Your task to perform on an android device: turn off notifications settings in the gmail app Image 0: 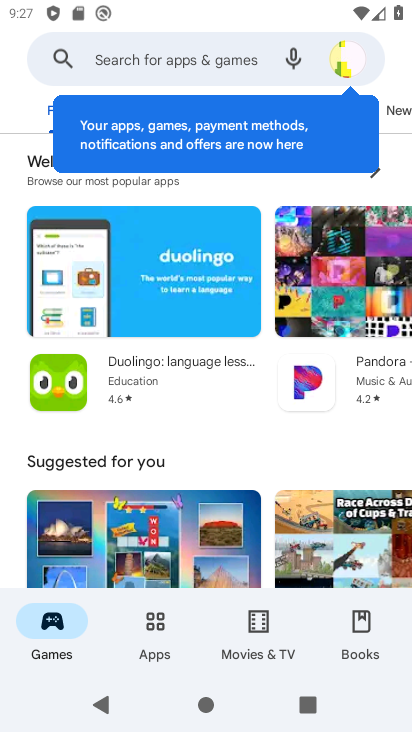
Step 0: press back button
Your task to perform on an android device: turn off notifications settings in the gmail app Image 1: 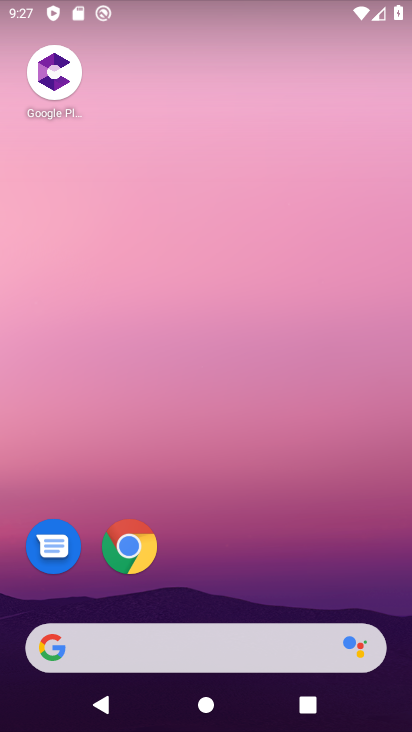
Step 1: drag from (267, 582) to (230, 66)
Your task to perform on an android device: turn off notifications settings in the gmail app Image 2: 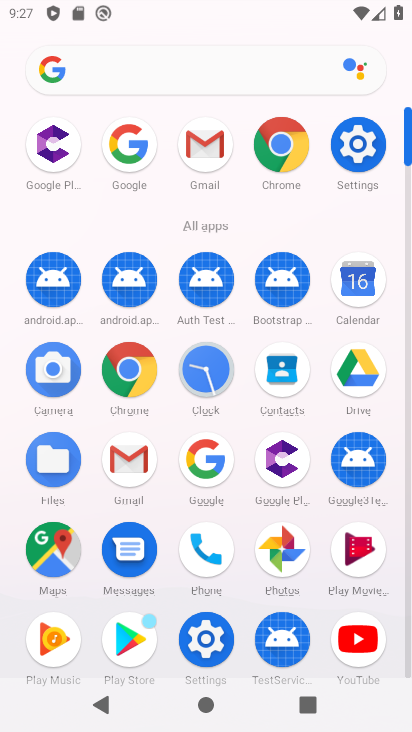
Step 2: click (205, 145)
Your task to perform on an android device: turn off notifications settings in the gmail app Image 3: 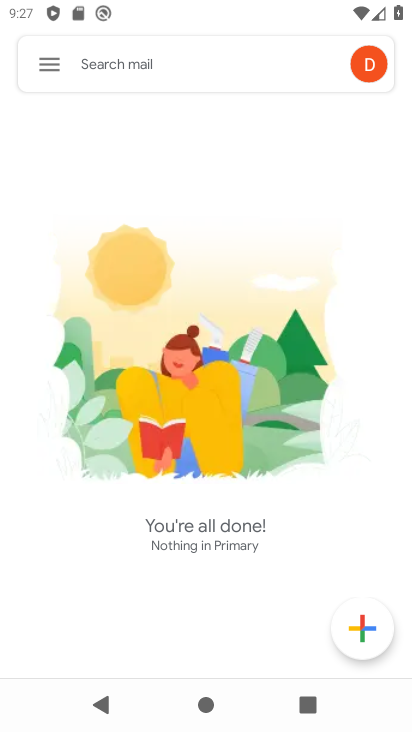
Step 3: click (50, 66)
Your task to perform on an android device: turn off notifications settings in the gmail app Image 4: 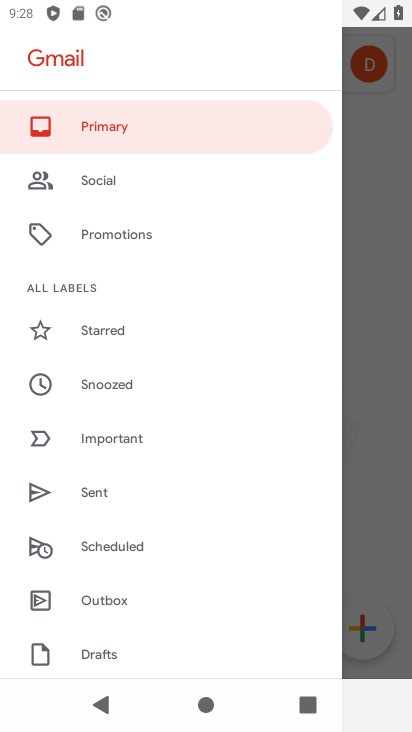
Step 4: drag from (138, 419) to (144, 327)
Your task to perform on an android device: turn off notifications settings in the gmail app Image 5: 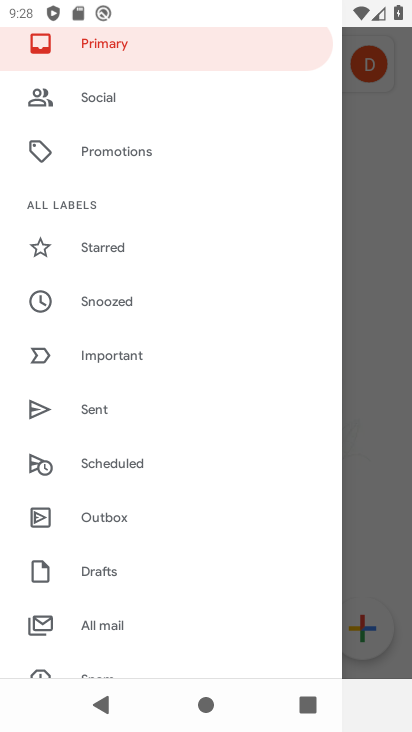
Step 5: drag from (114, 444) to (152, 343)
Your task to perform on an android device: turn off notifications settings in the gmail app Image 6: 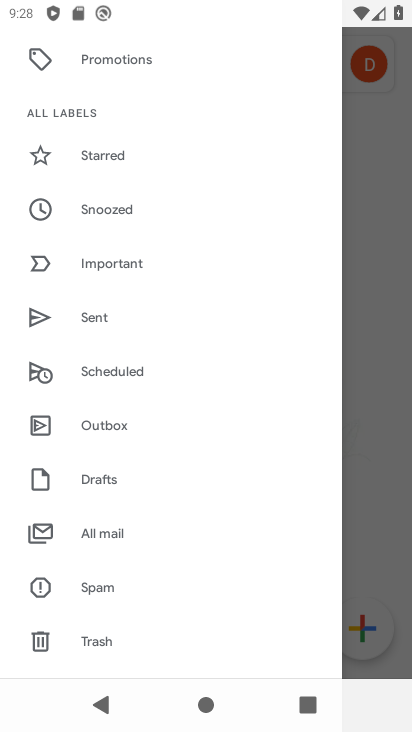
Step 6: drag from (158, 619) to (208, 489)
Your task to perform on an android device: turn off notifications settings in the gmail app Image 7: 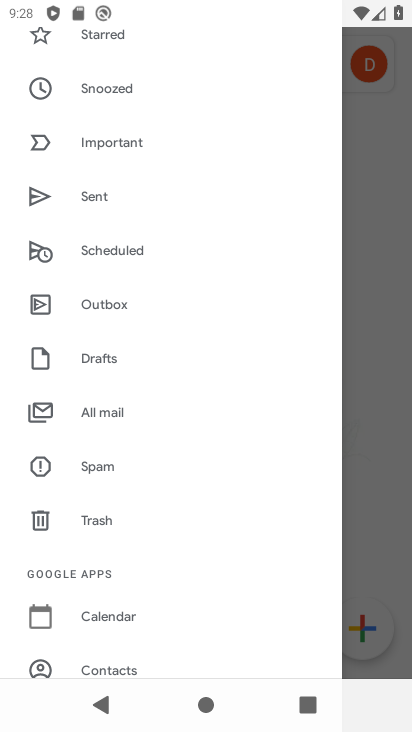
Step 7: drag from (137, 572) to (192, 496)
Your task to perform on an android device: turn off notifications settings in the gmail app Image 8: 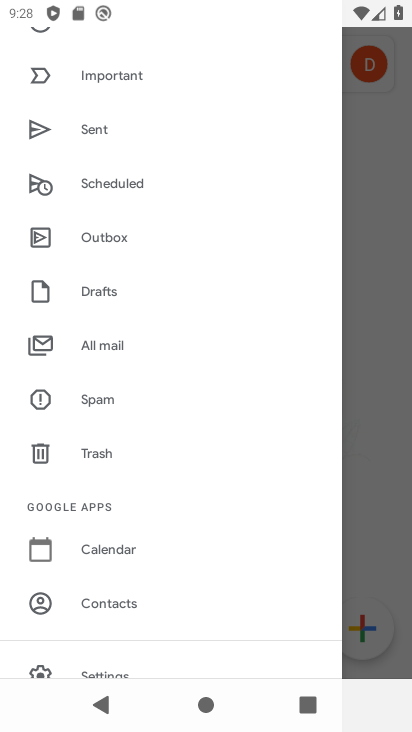
Step 8: drag from (147, 610) to (210, 538)
Your task to perform on an android device: turn off notifications settings in the gmail app Image 9: 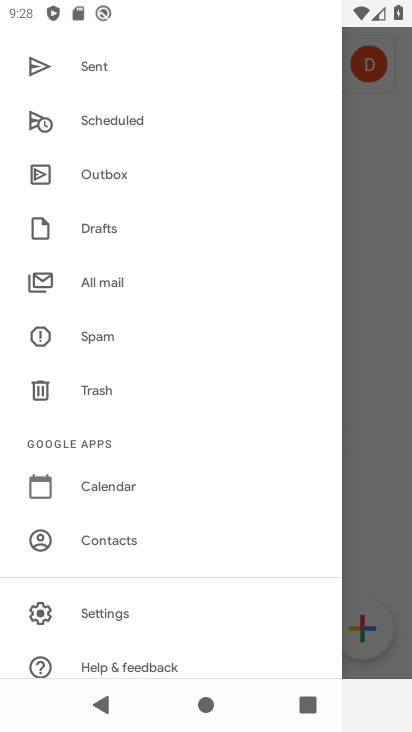
Step 9: click (98, 621)
Your task to perform on an android device: turn off notifications settings in the gmail app Image 10: 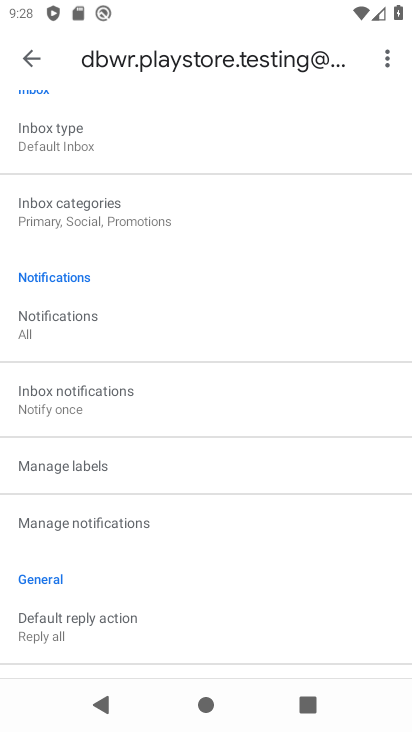
Step 10: click (87, 523)
Your task to perform on an android device: turn off notifications settings in the gmail app Image 11: 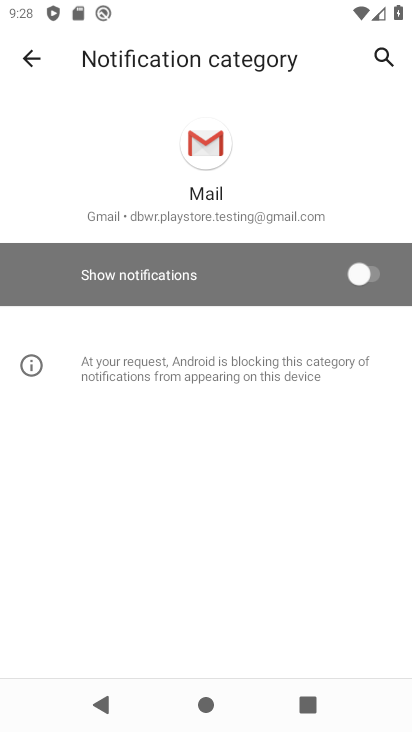
Step 11: task complete